Your task to perform on an android device: Open the Play Movies app and select the watchlist tab. Image 0: 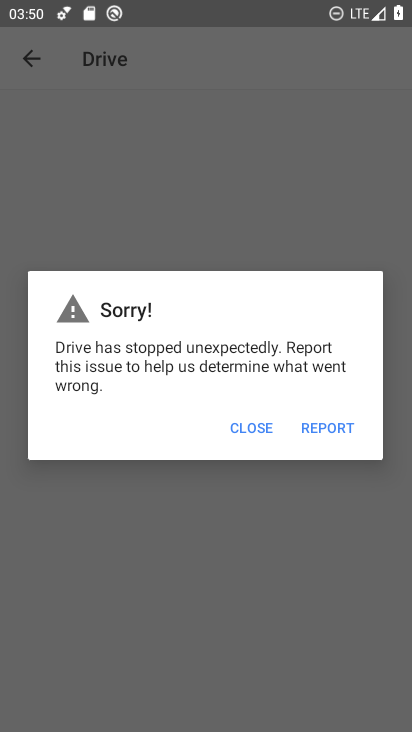
Step 0: press home button
Your task to perform on an android device: Open the Play Movies app and select the watchlist tab. Image 1: 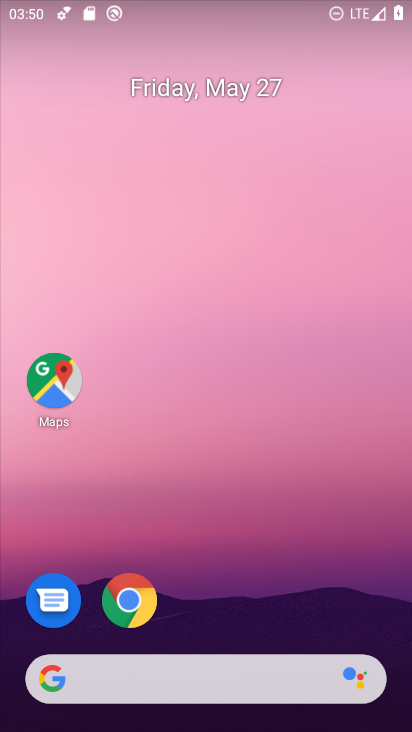
Step 1: drag from (215, 705) to (223, 118)
Your task to perform on an android device: Open the Play Movies app and select the watchlist tab. Image 2: 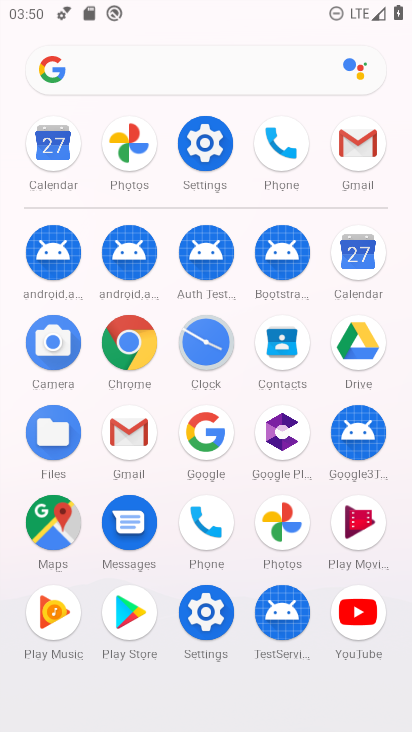
Step 2: click (357, 512)
Your task to perform on an android device: Open the Play Movies app and select the watchlist tab. Image 3: 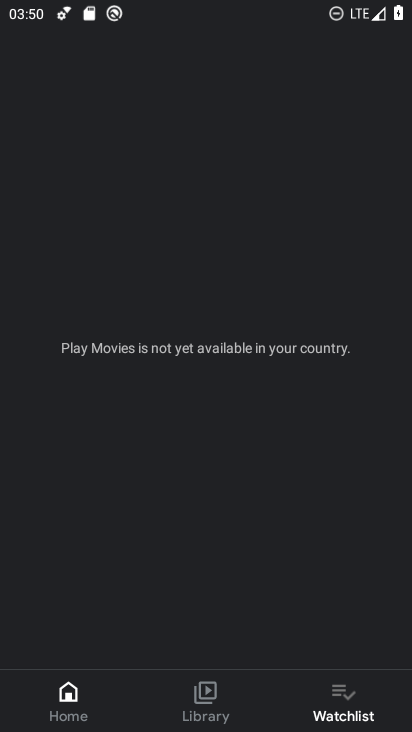
Step 3: task complete